Your task to perform on an android device: Search for the new nike shoes on Target Image 0: 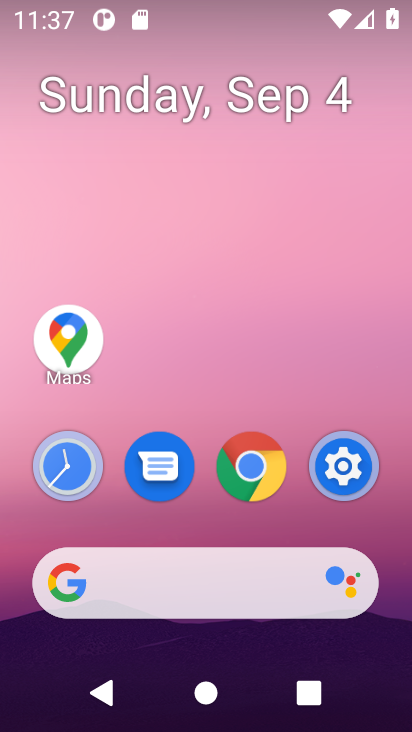
Step 0: click (219, 505)
Your task to perform on an android device: Search for the new nike shoes on Target Image 1: 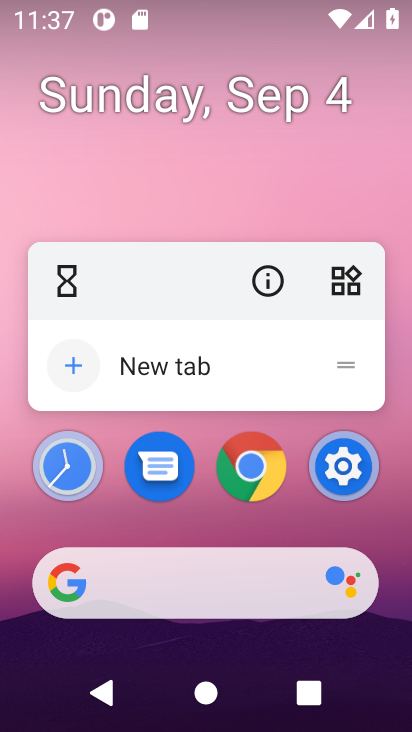
Step 1: click (209, 579)
Your task to perform on an android device: Search for the new nike shoes on Target Image 2: 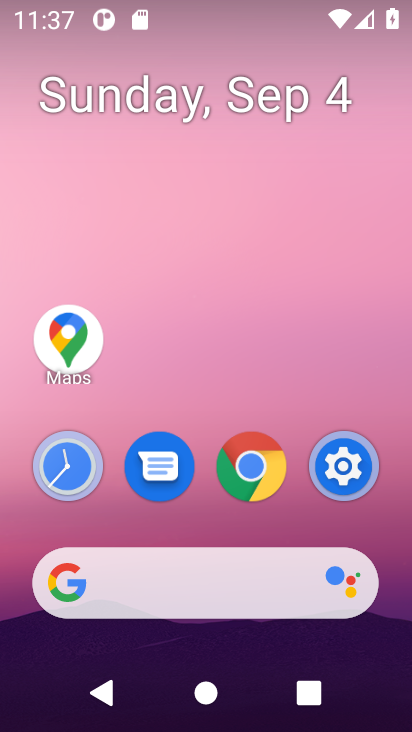
Step 2: click (196, 595)
Your task to perform on an android device: Search for the new nike shoes on Target Image 3: 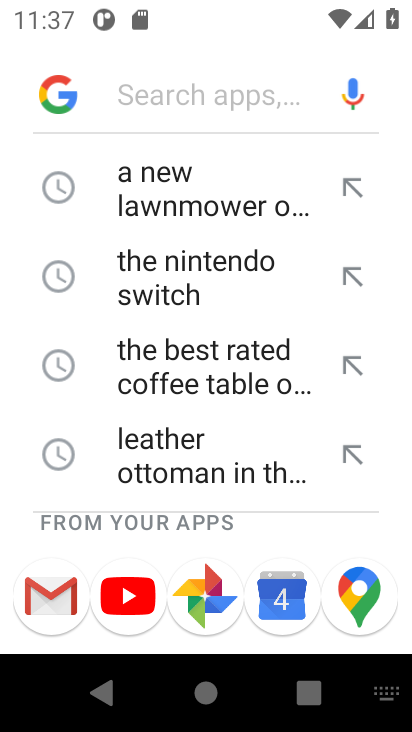
Step 3: type "the new nike shoes on Target"
Your task to perform on an android device: Search for the new nike shoes on Target Image 4: 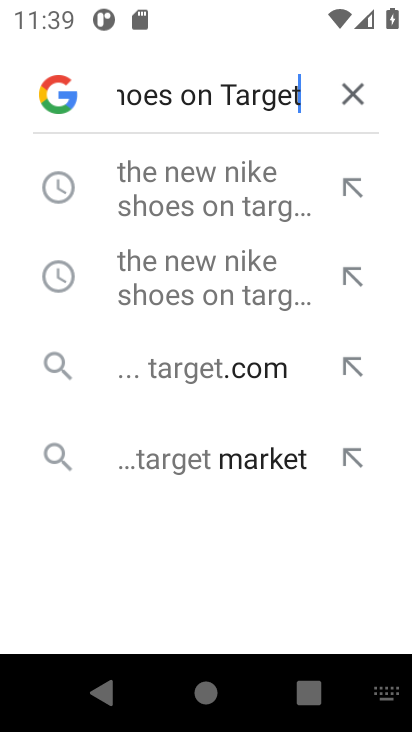
Step 4: task complete